Your task to perform on an android device: clear history in the chrome app Image 0: 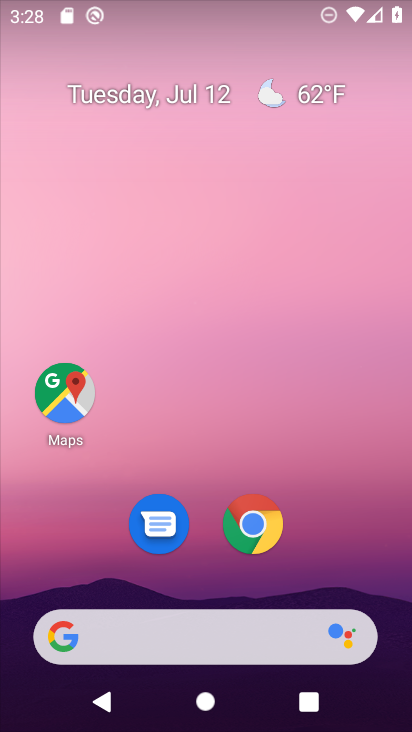
Step 0: click (272, 529)
Your task to perform on an android device: clear history in the chrome app Image 1: 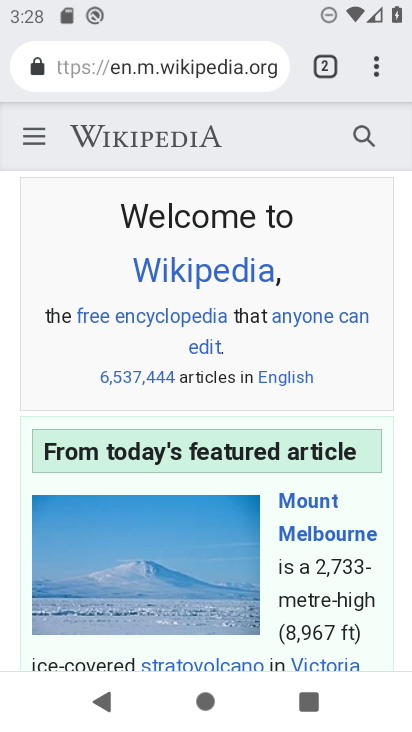
Step 1: click (373, 62)
Your task to perform on an android device: clear history in the chrome app Image 2: 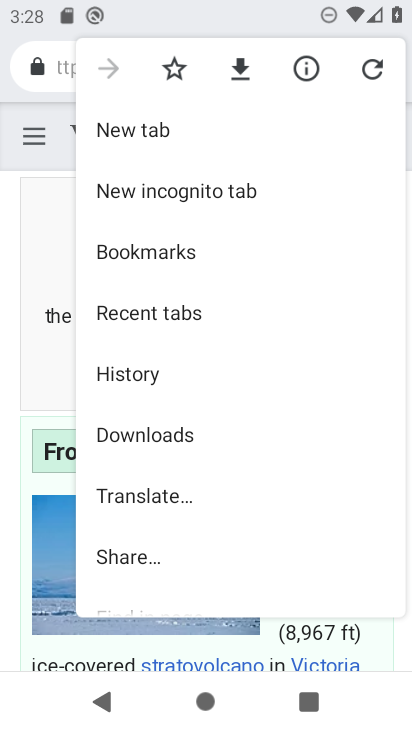
Step 2: click (141, 374)
Your task to perform on an android device: clear history in the chrome app Image 3: 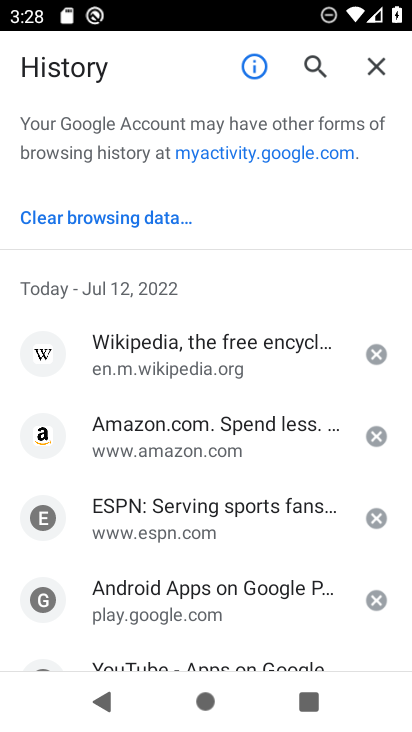
Step 3: click (134, 216)
Your task to perform on an android device: clear history in the chrome app Image 4: 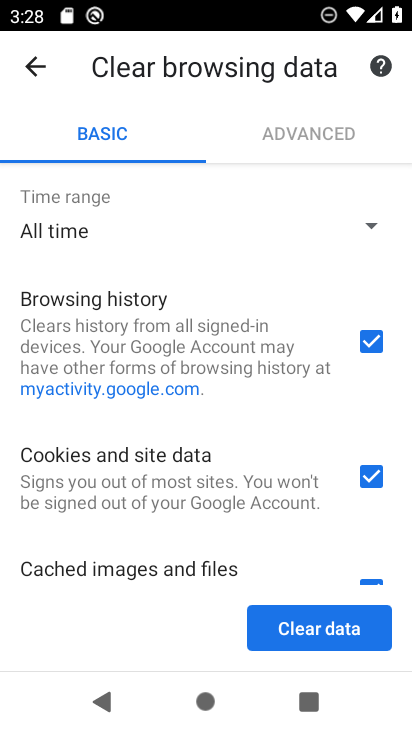
Step 4: click (325, 628)
Your task to perform on an android device: clear history in the chrome app Image 5: 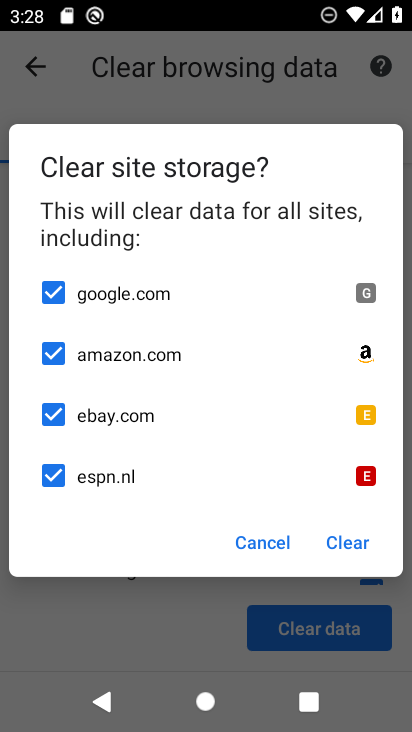
Step 5: click (341, 542)
Your task to perform on an android device: clear history in the chrome app Image 6: 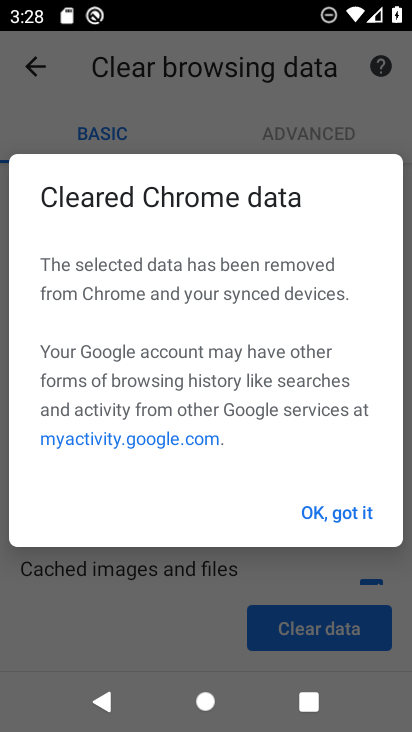
Step 6: click (341, 512)
Your task to perform on an android device: clear history in the chrome app Image 7: 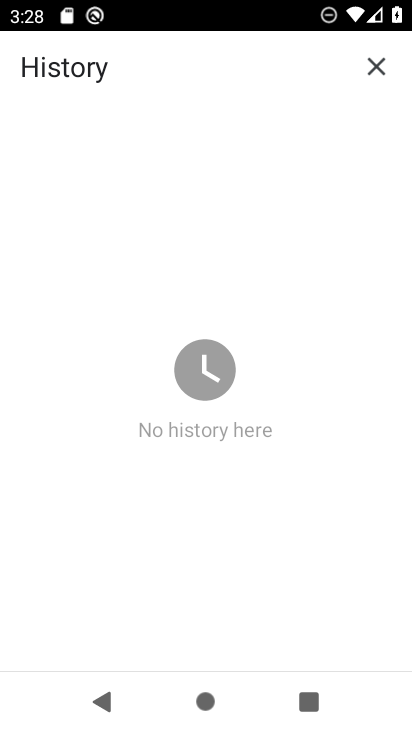
Step 7: task complete